Your task to perform on an android device: Open Google Chrome and click the shortcut for Amazon.com Image 0: 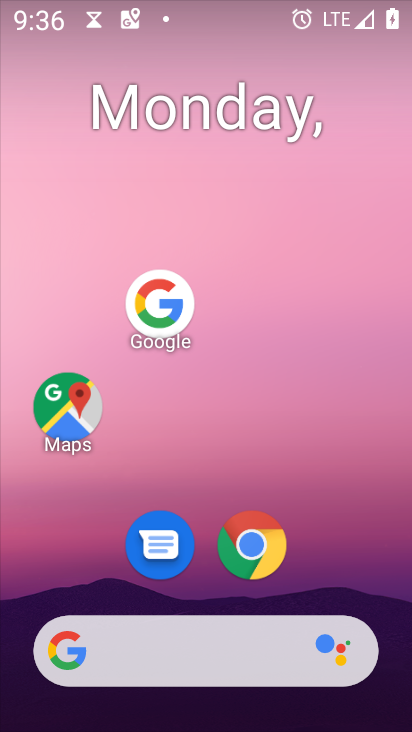
Step 0: press home button
Your task to perform on an android device: Open Google Chrome and click the shortcut for Amazon.com Image 1: 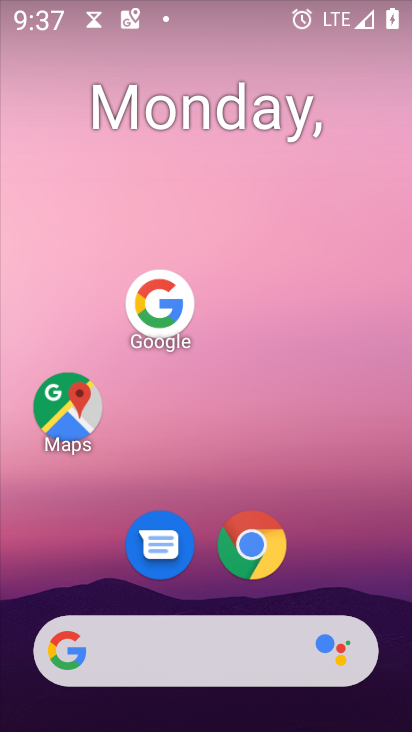
Step 1: click (250, 556)
Your task to perform on an android device: Open Google Chrome and click the shortcut for Amazon.com Image 2: 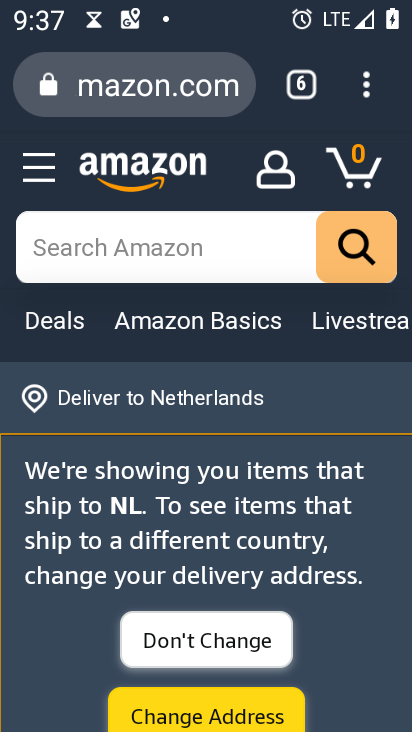
Step 2: task complete